Your task to perform on an android device: Add "rayovac triple a" to the cart on ebay Image 0: 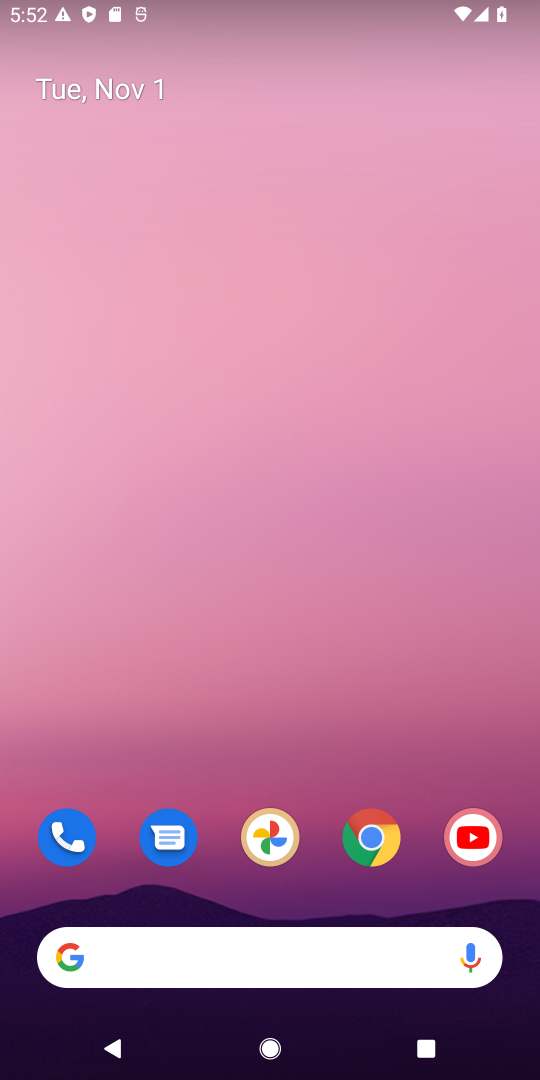
Step 0: drag from (361, 1023) to (332, 56)
Your task to perform on an android device: Add "rayovac triple a" to the cart on ebay Image 1: 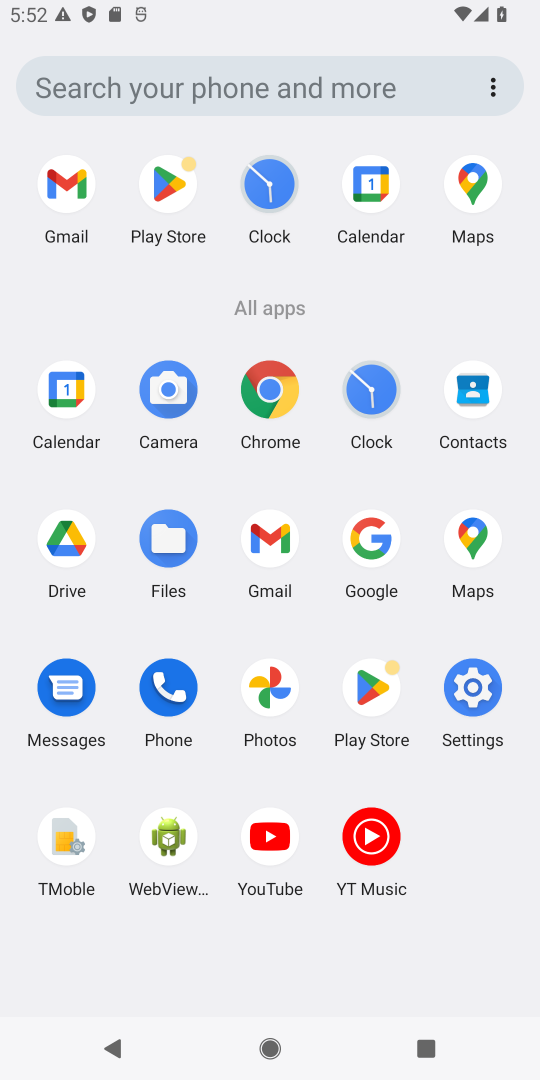
Step 1: click (272, 392)
Your task to perform on an android device: Add "rayovac triple a" to the cart on ebay Image 2: 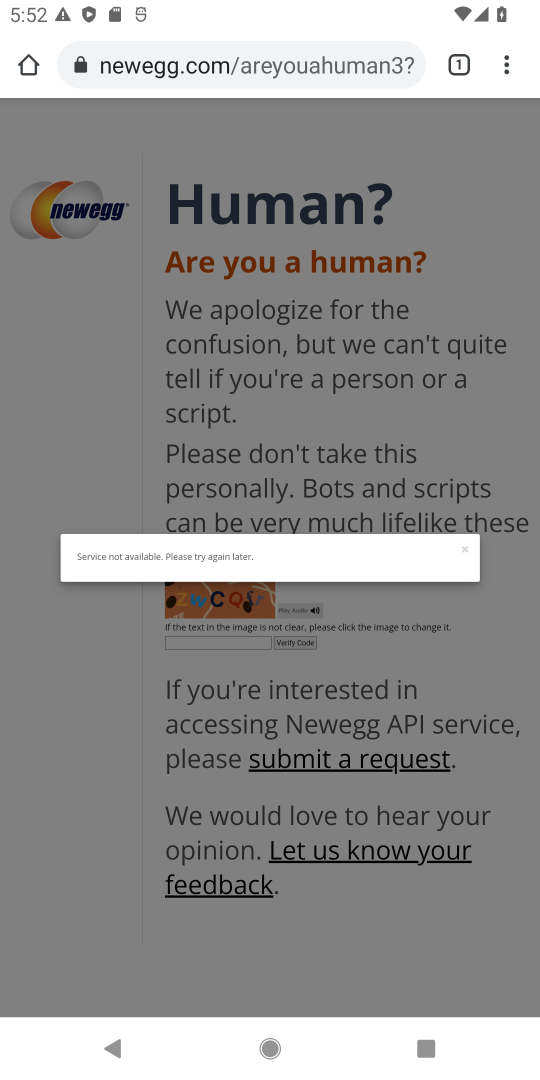
Step 2: click (198, 64)
Your task to perform on an android device: Add "rayovac triple a" to the cart on ebay Image 3: 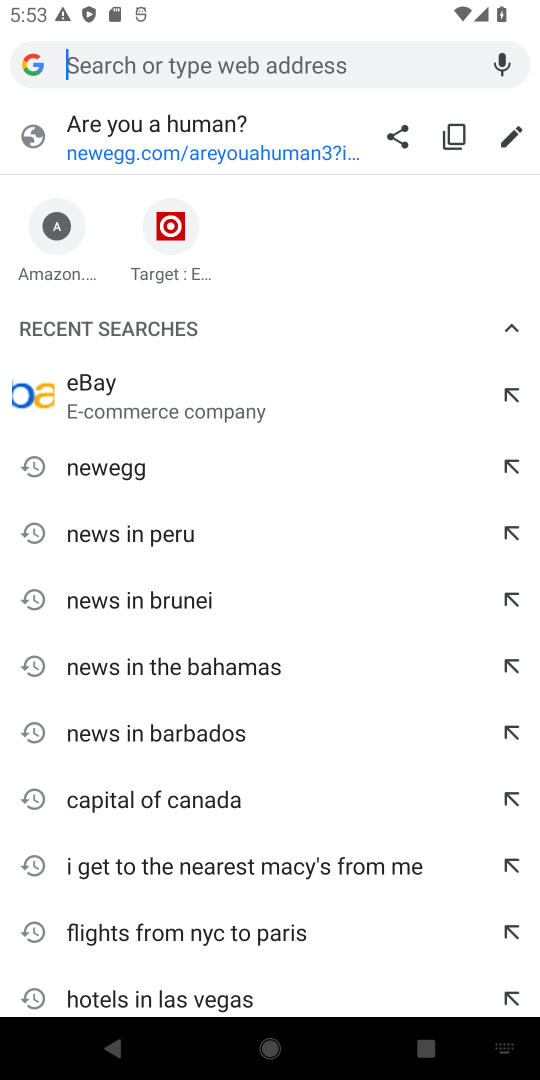
Step 3: type "ebay"
Your task to perform on an android device: Add "rayovac triple a" to the cart on ebay Image 4: 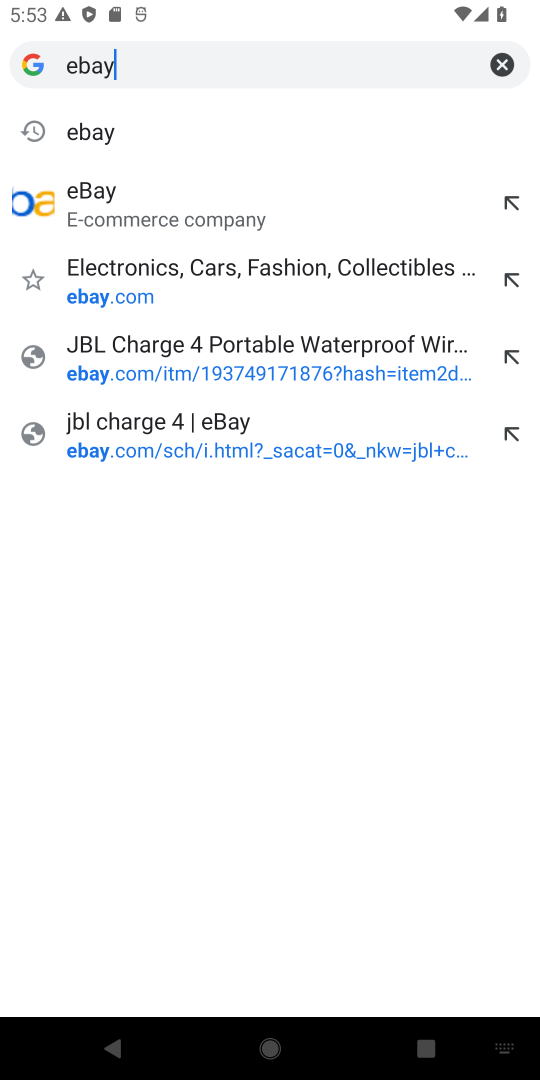
Step 4: click (91, 187)
Your task to perform on an android device: Add "rayovac triple a" to the cart on ebay Image 5: 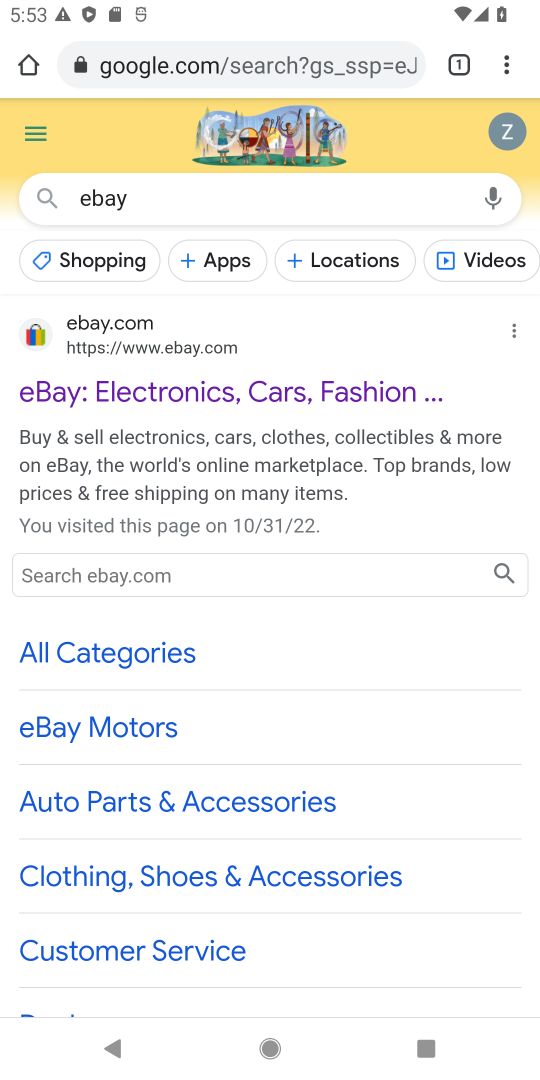
Step 5: click (283, 391)
Your task to perform on an android device: Add "rayovac triple a" to the cart on ebay Image 6: 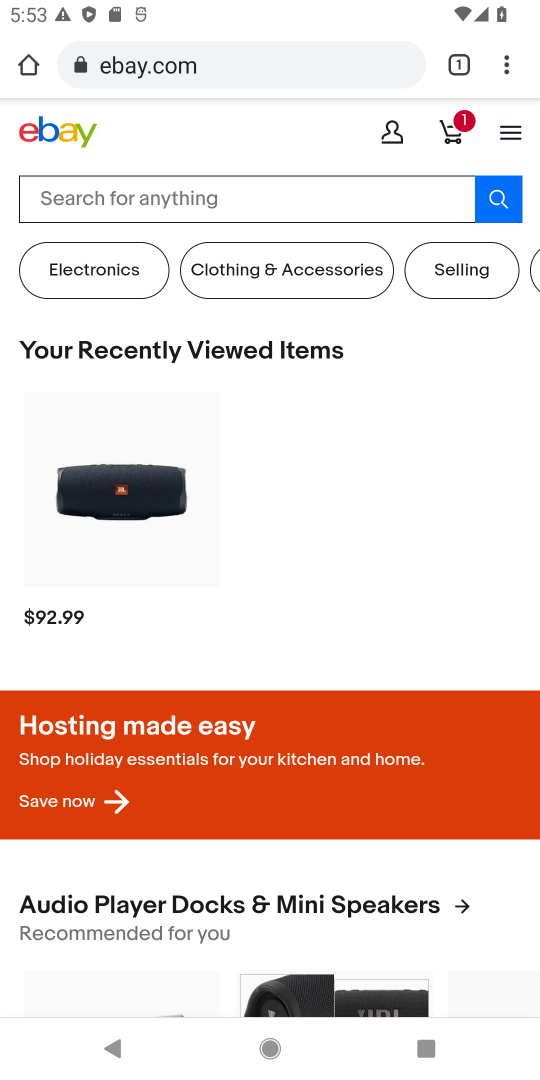
Step 6: click (143, 202)
Your task to perform on an android device: Add "rayovac triple a" to the cart on ebay Image 7: 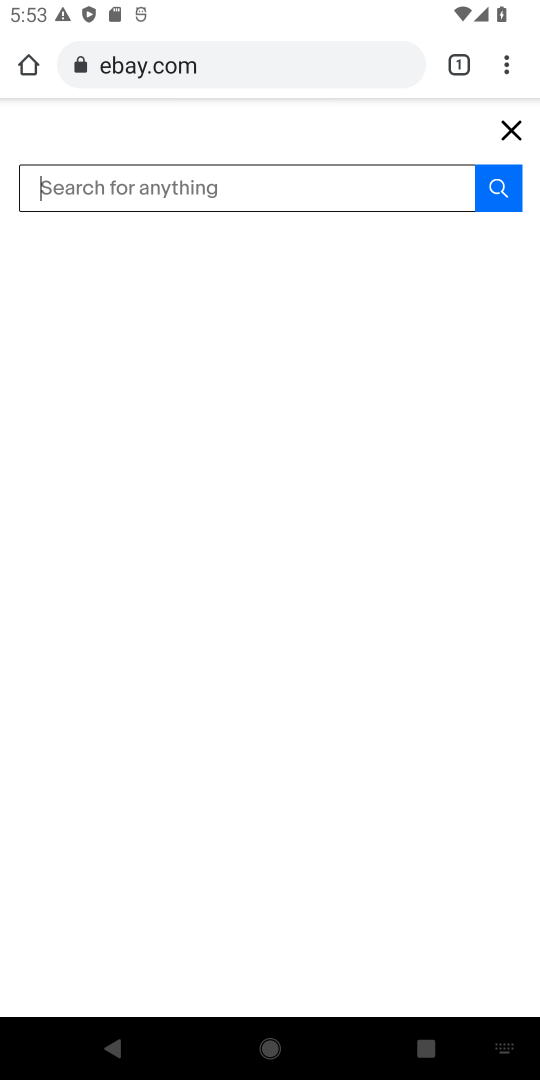
Step 7: type "rayovac triple a"
Your task to perform on an android device: Add "rayovac triple a" to the cart on ebay Image 8: 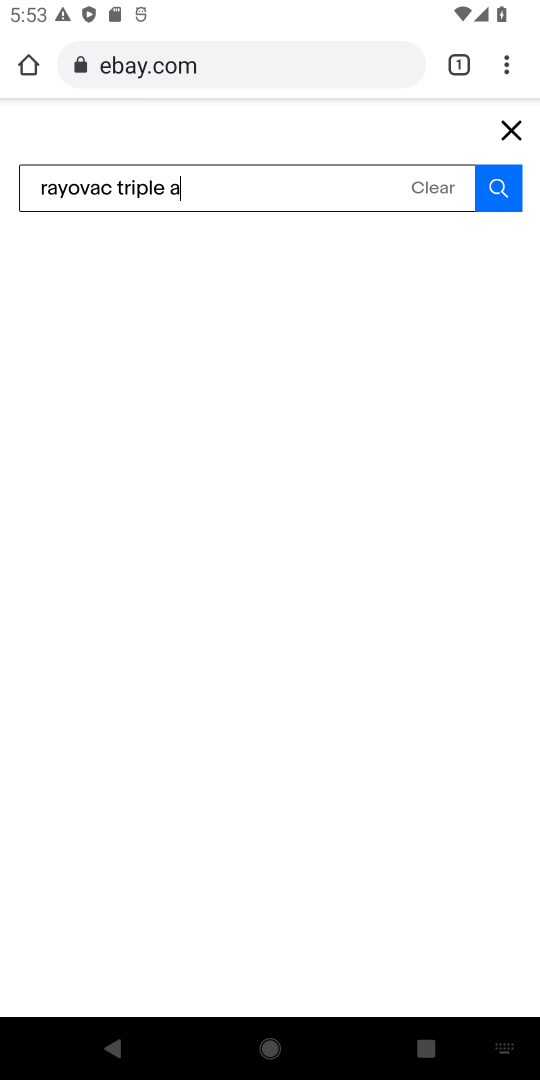
Step 8: click (495, 190)
Your task to perform on an android device: Add "rayovac triple a" to the cart on ebay Image 9: 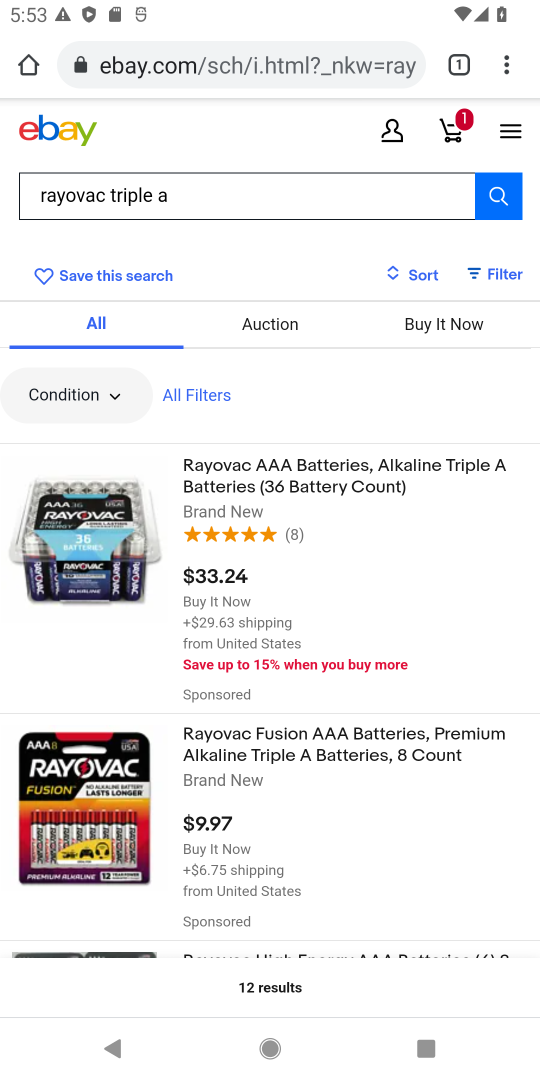
Step 9: click (72, 510)
Your task to perform on an android device: Add "rayovac triple a" to the cart on ebay Image 10: 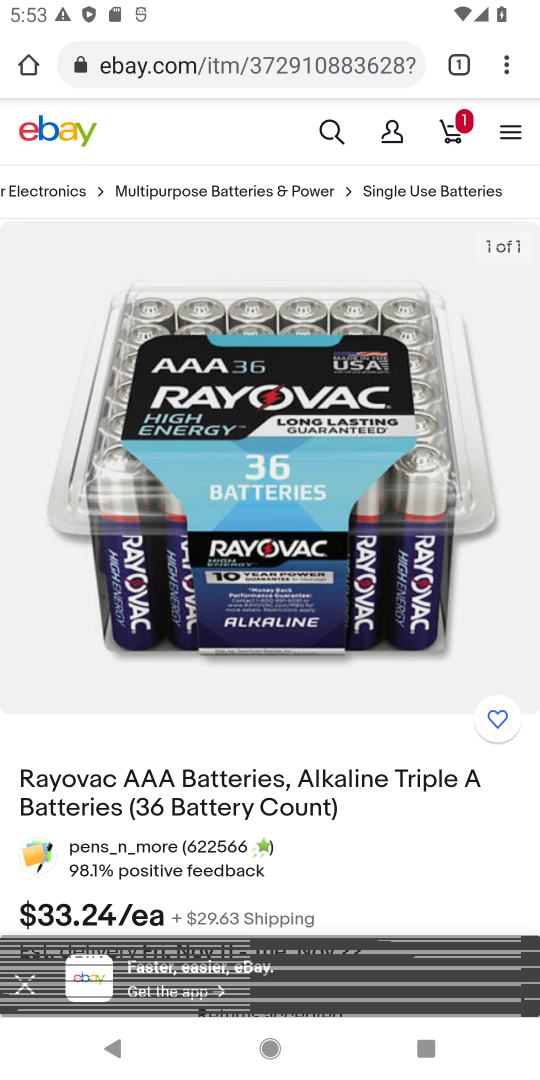
Step 10: drag from (236, 703) to (131, 190)
Your task to perform on an android device: Add "rayovac triple a" to the cart on ebay Image 11: 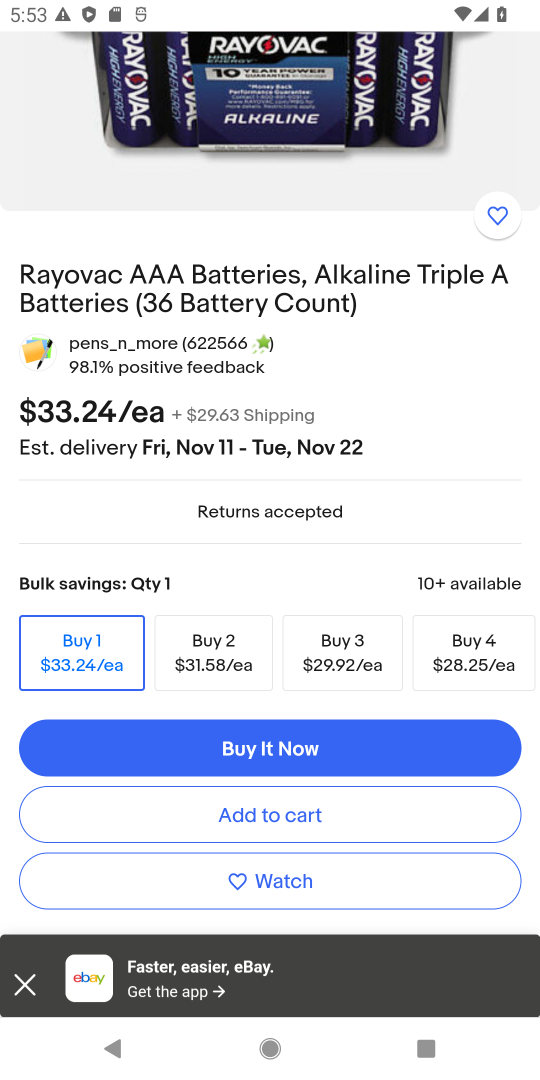
Step 11: click (269, 807)
Your task to perform on an android device: Add "rayovac triple a" to the cart on ebay Image 12: 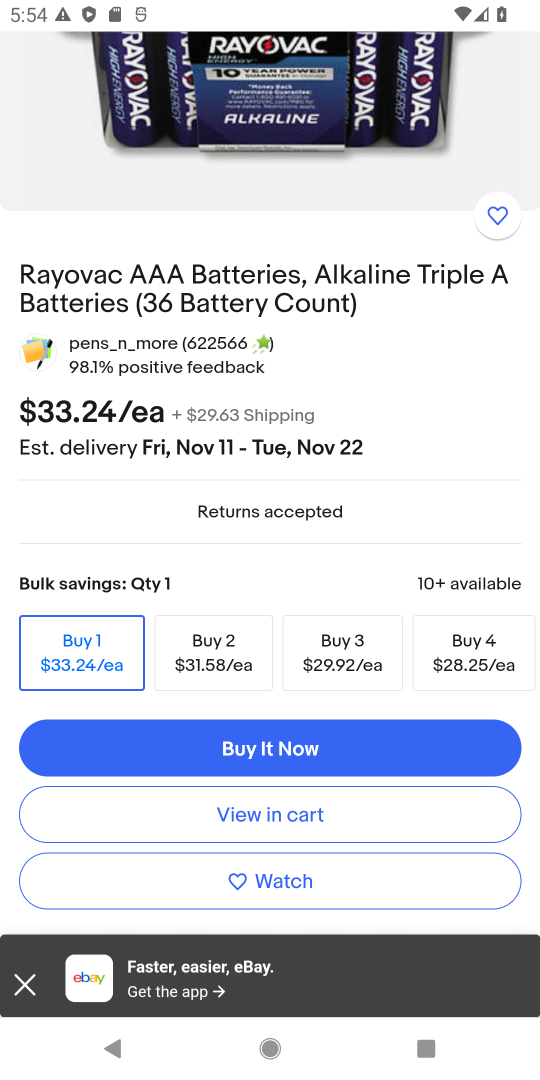
Step 12: task complete